Your task to perform on an android device: Clear all items from cart on newegg. Image 0: 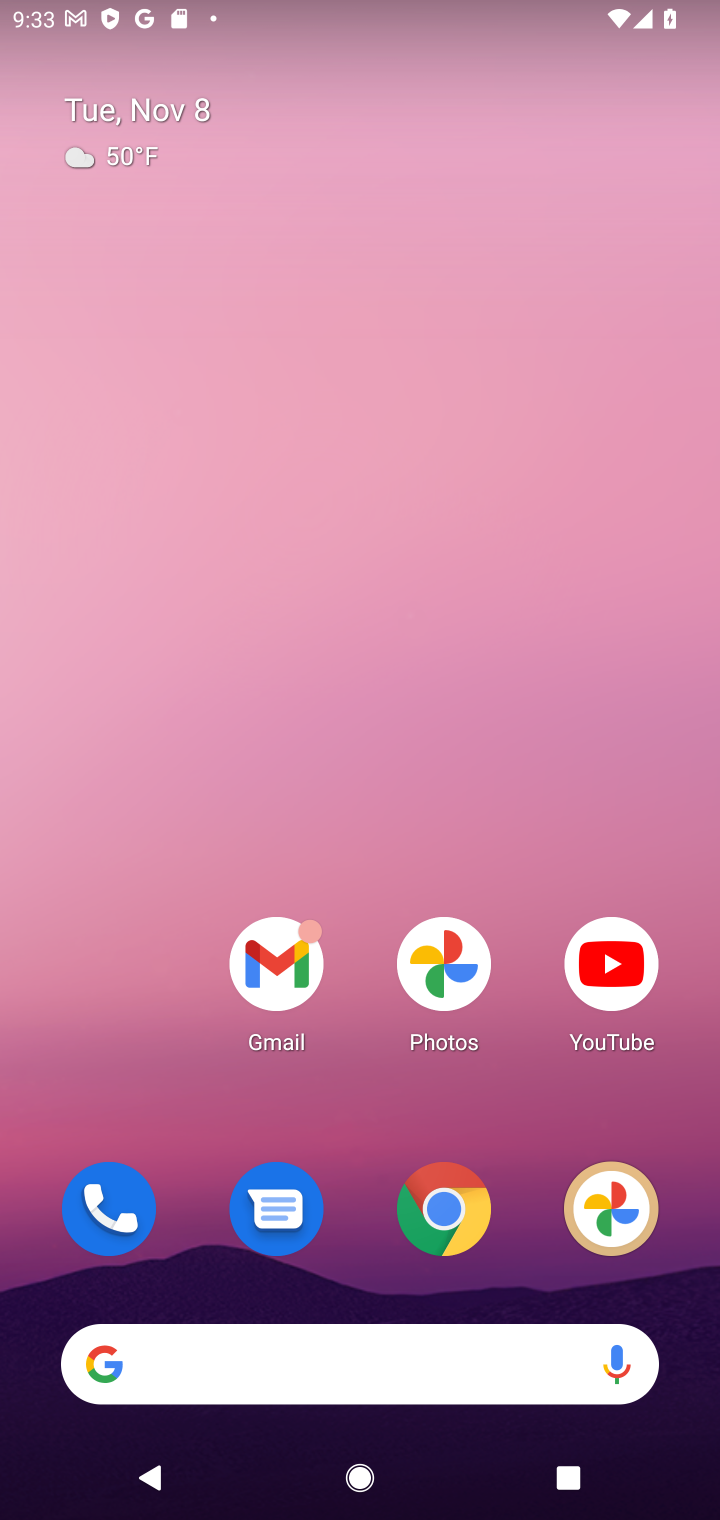
Step 0: click (439, 1213)
Your task to perform on an android device: Clear all items from cart on newegg. Image 1: 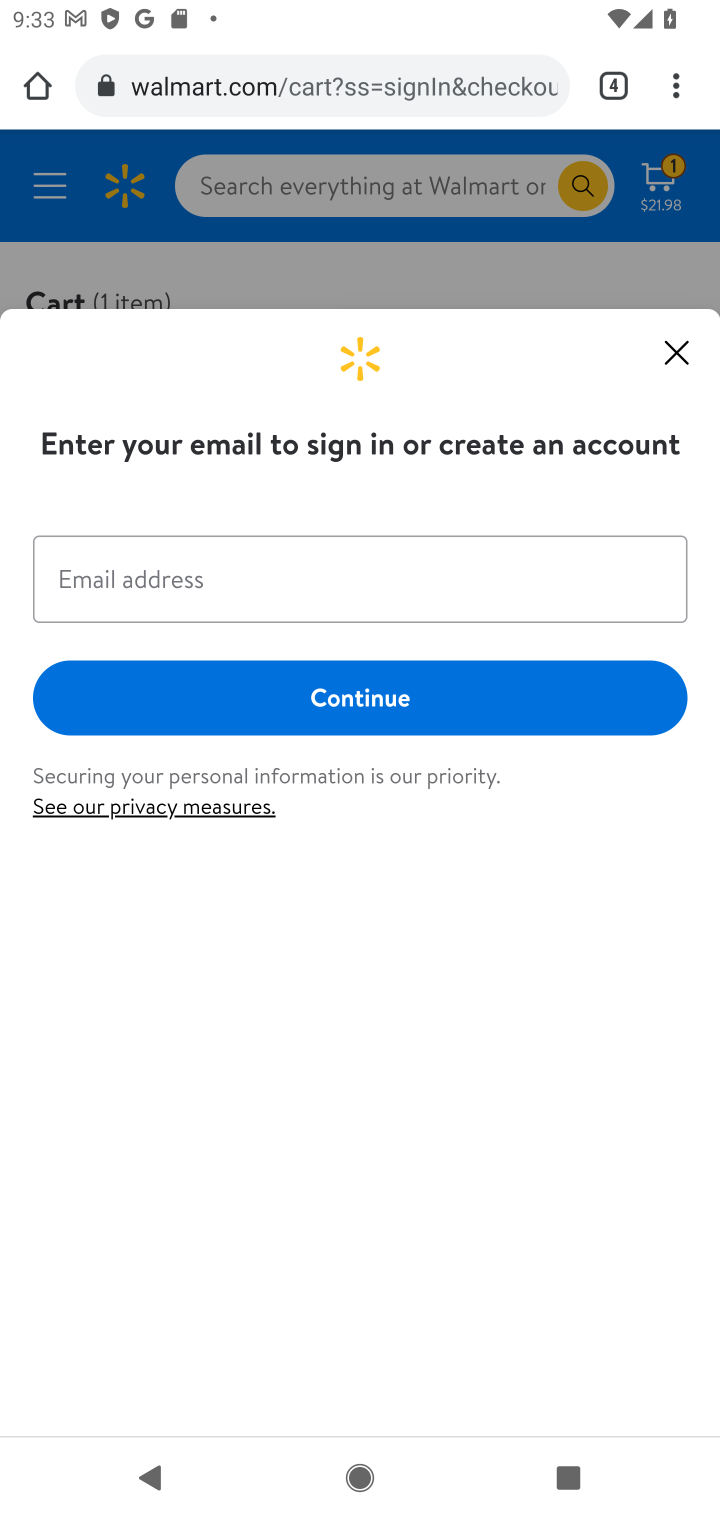
Step 1: click (626, 80)
Your task to perform on an android device: Clear all items from cart on newegg. Image 2: 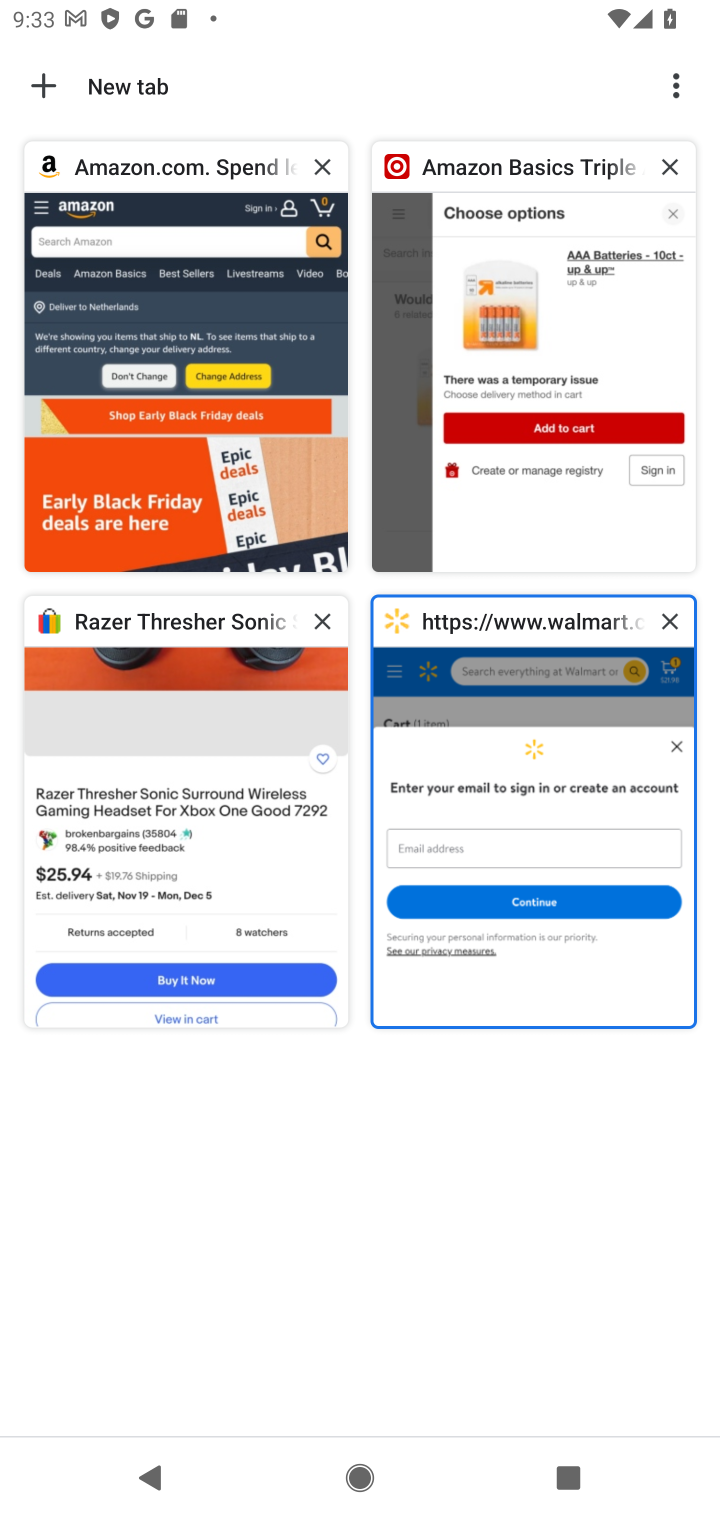
Step 2: click (31, 72)
Your task to perform on an android device: Clear all items from cart on newegg. Image 3: 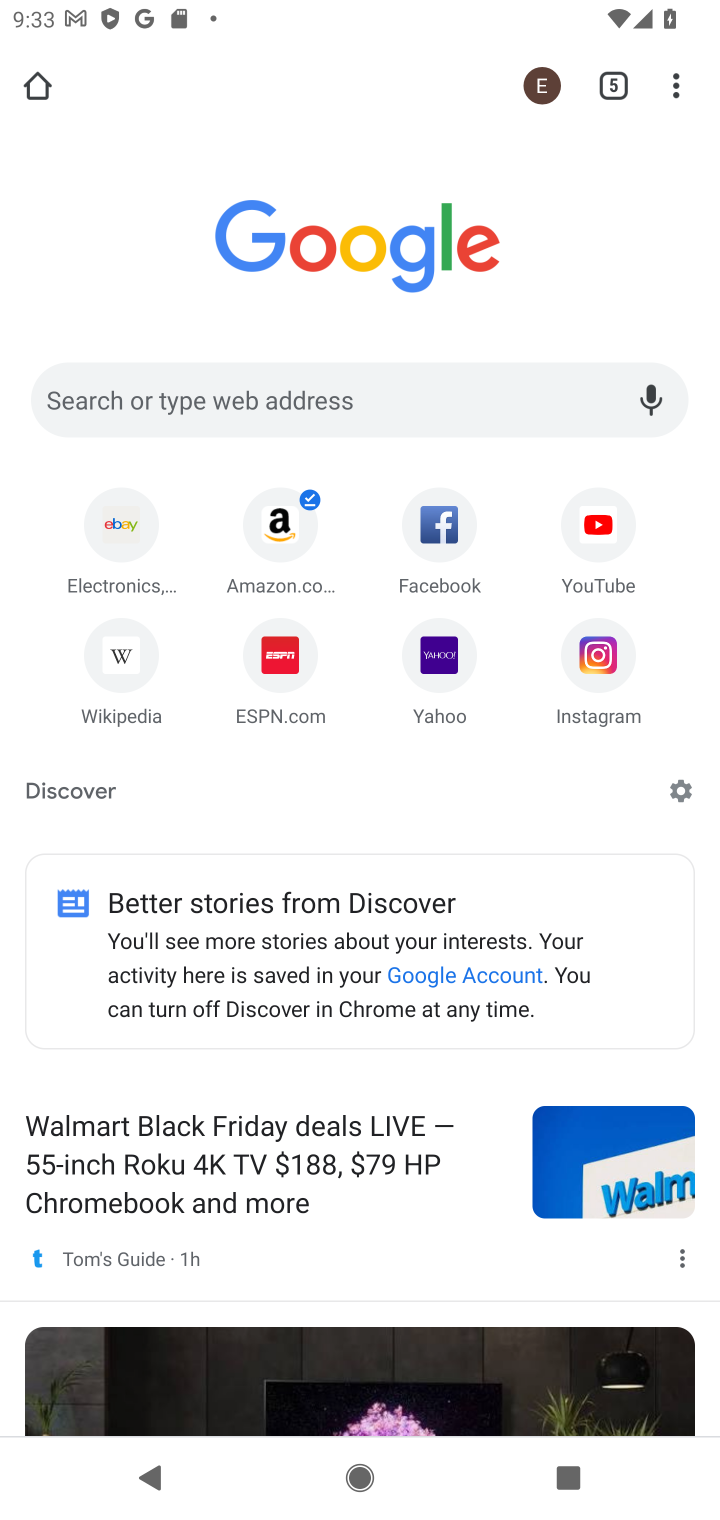
Step 3: click (429, 416)
Your task to perform on an android device: Clear all items from cart on newegg. Image 4: 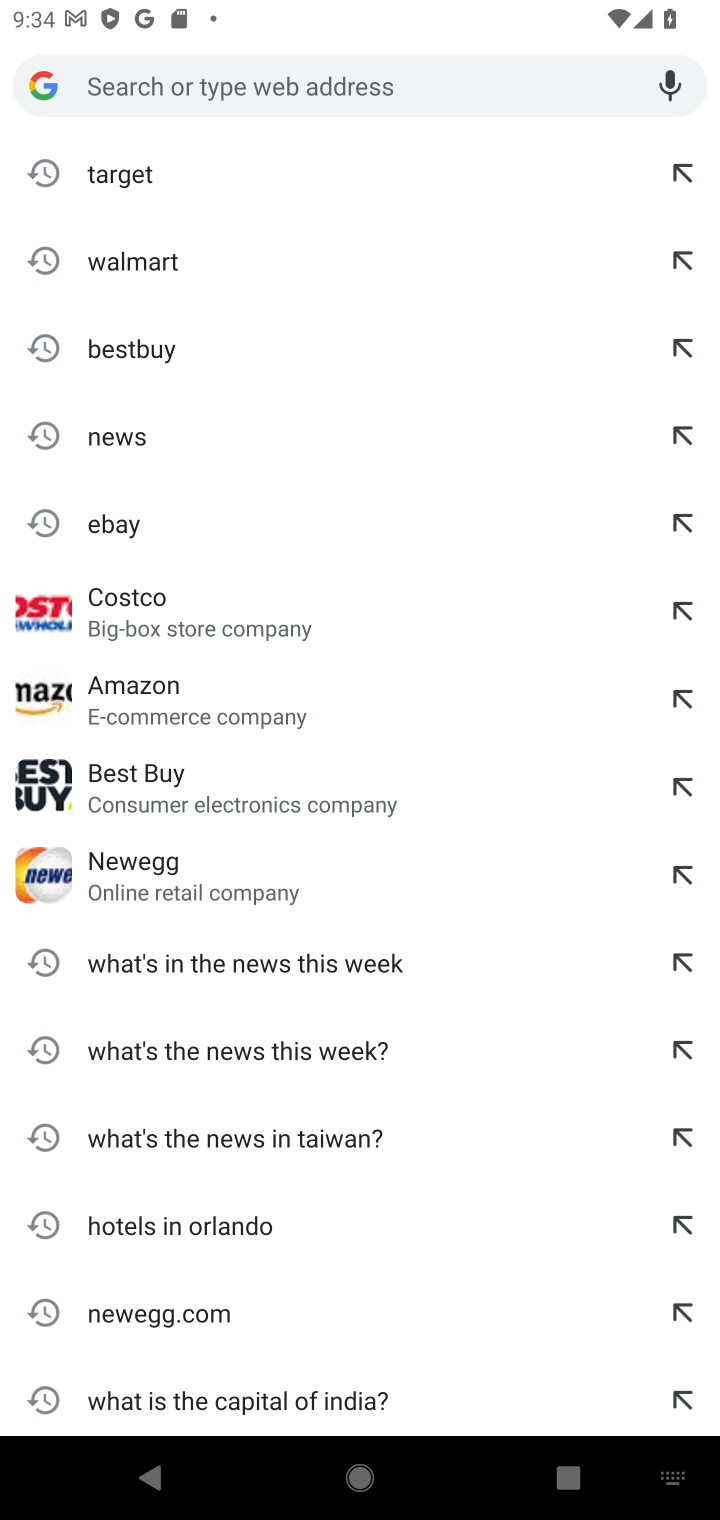
Step 4: click (95, 868)
Your task to perform on an android device: Clear all items from cart on newegg. Image 5: 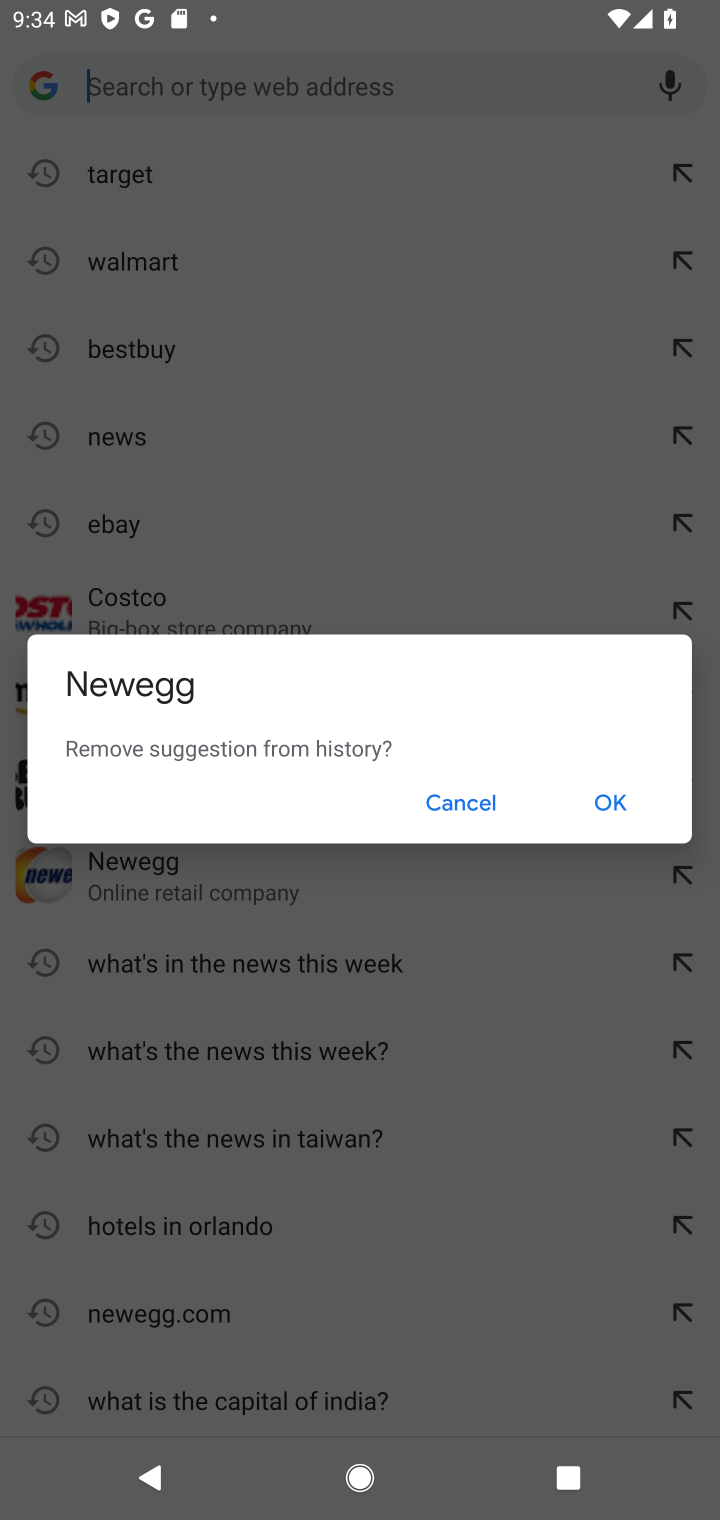
Step 5: click (608, 797)
Your task to perform on an android device: Clear all items from cart on newegg. Image 6: 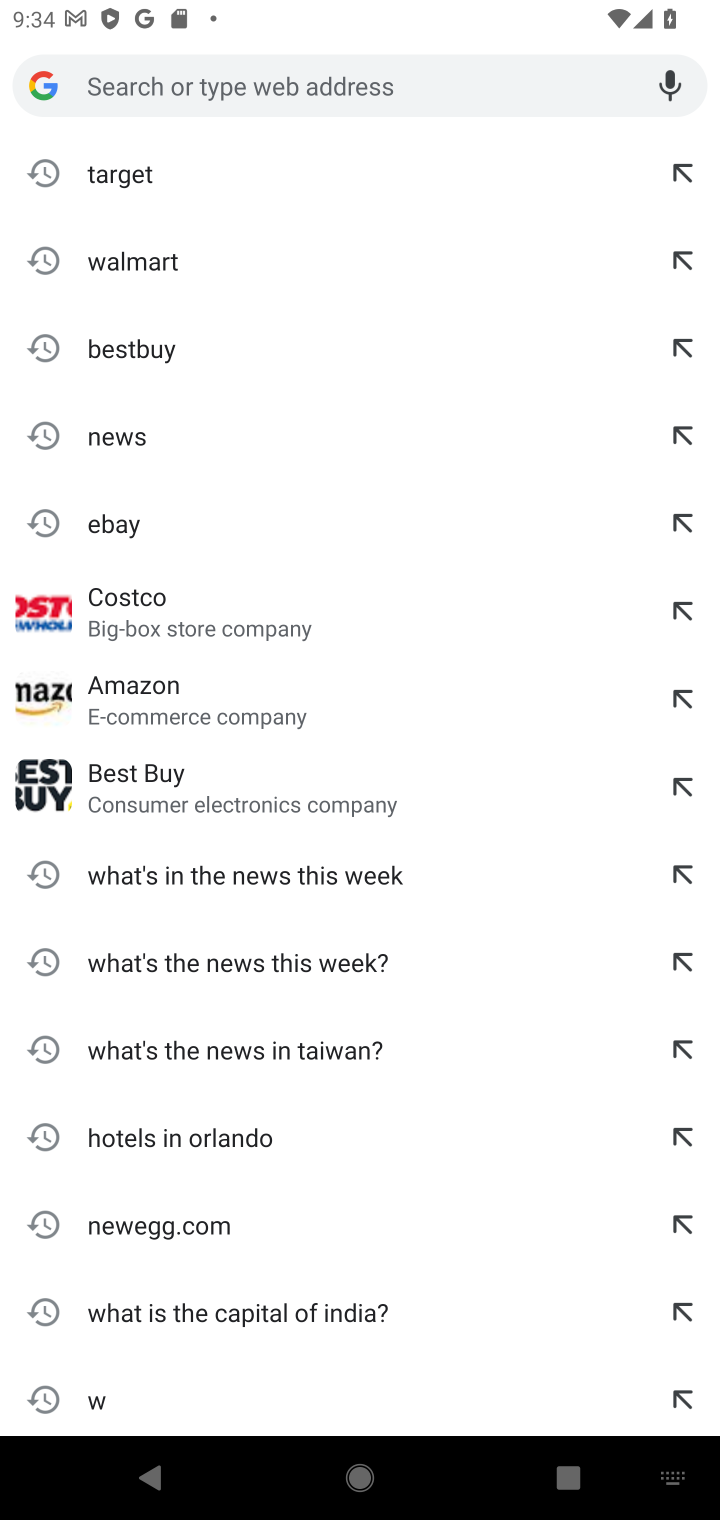
Step 6: type "newegg"
Your task to perform on an android device: Clear all items from cart on newegg. Image 7: 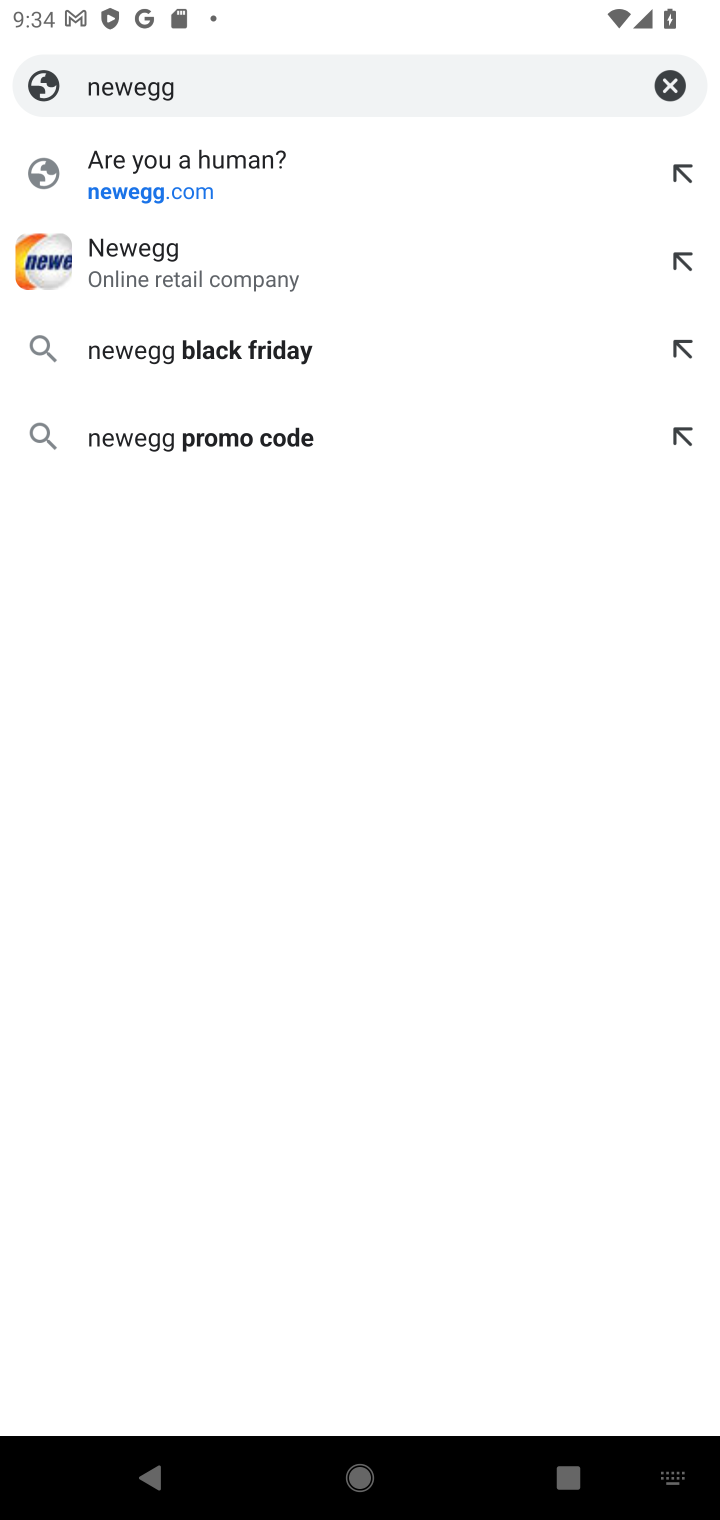
Step 7: click (160, 265)
Your task to perform on an android device: Clear all items from cart on newegg. Image 8: 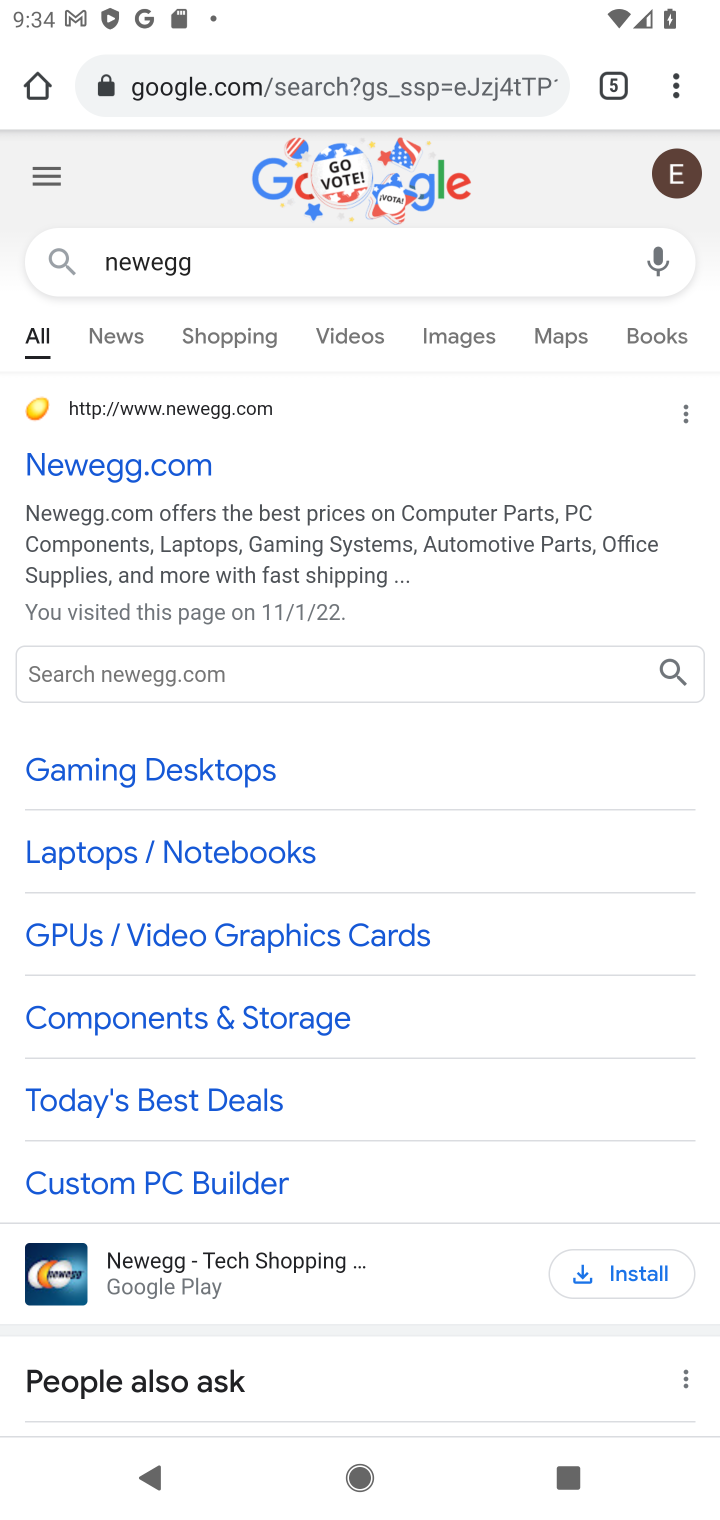
Step 8: click (149, 461)
Your task to perform on an android device: Clear all items from cart on newegg. Image 9: 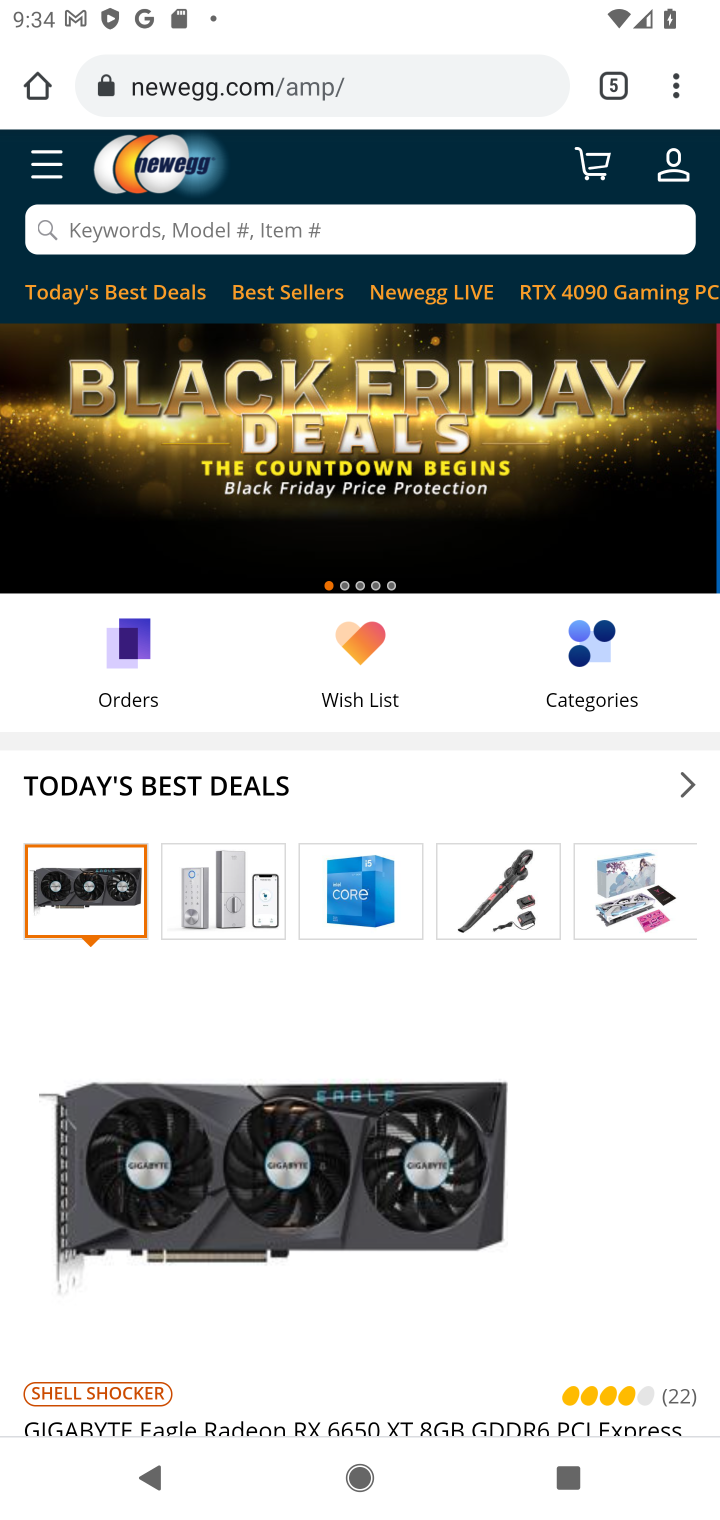
Step 9: task complete